Your task to perform on an android device: What is the capital of the United Kingdom? Image 0: 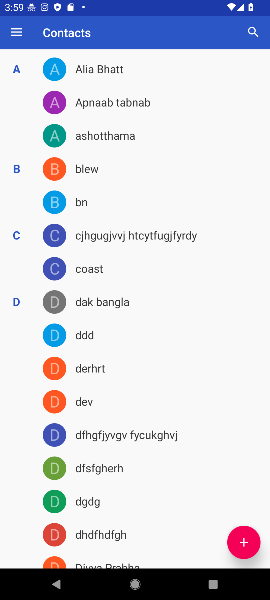
Step 0: press home button
Your task to perform on an android device: What is the capital of the United Kingdom? Image 1: 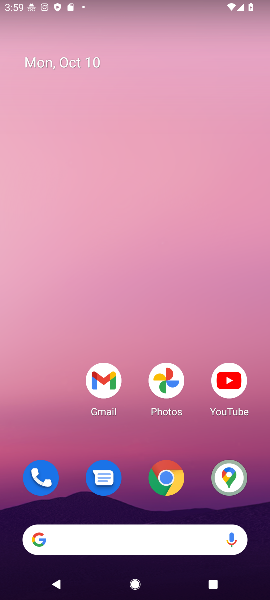
Step 1: click (169, 461)
Your task to perform on an android device: What is the capital of the United Kingdom? Image 2: 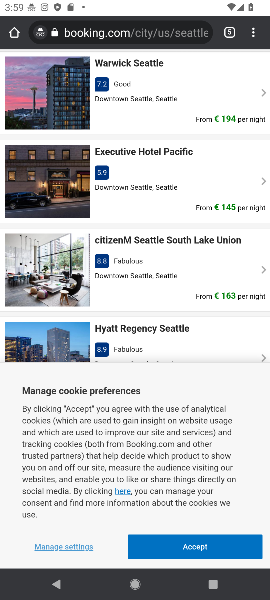
Step 2: click (82, 33)
Your task to perform on an android device: What is the capital of the United Kingdom? Image 3: 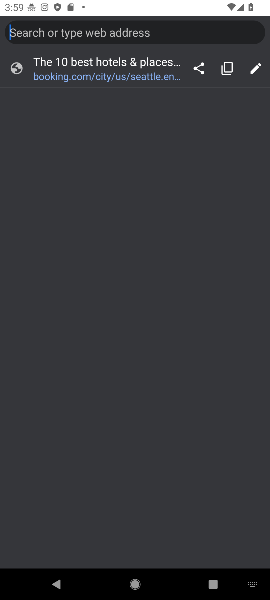
Step 3: type " capital of the United Kingdom?"
Your task to perform on an android device: What is the capital of the United Kingdom? Image 4: 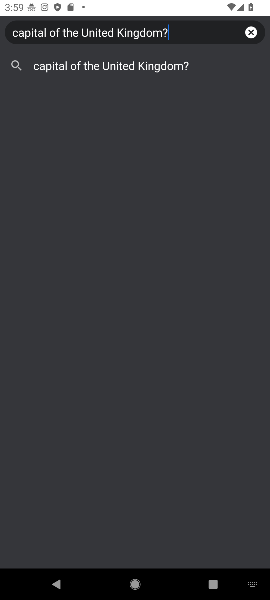
Step 4: click (34, 62)
Your task to perform on an android device: What is the capital of the United Kingdom? Image 5: 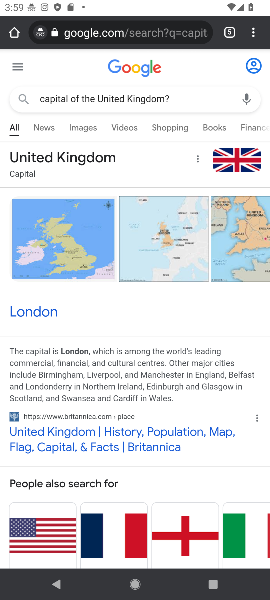
Step 5: task complete